Your task to perform on an android device: Open ESPN.com Image 0: 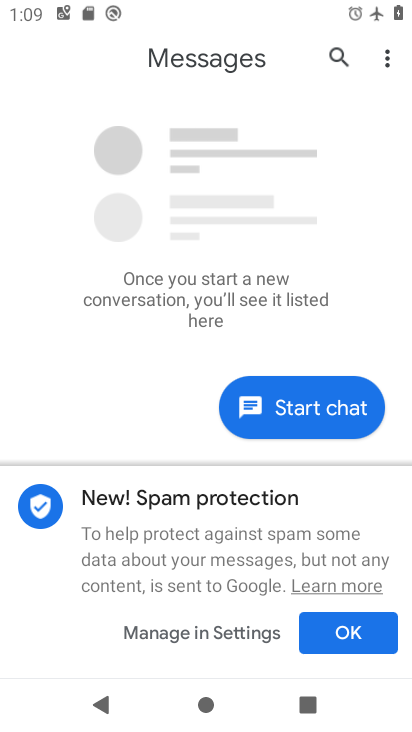
Step 0: press home button
Your task to perform on an android device: Open ESPN.com Image 1: 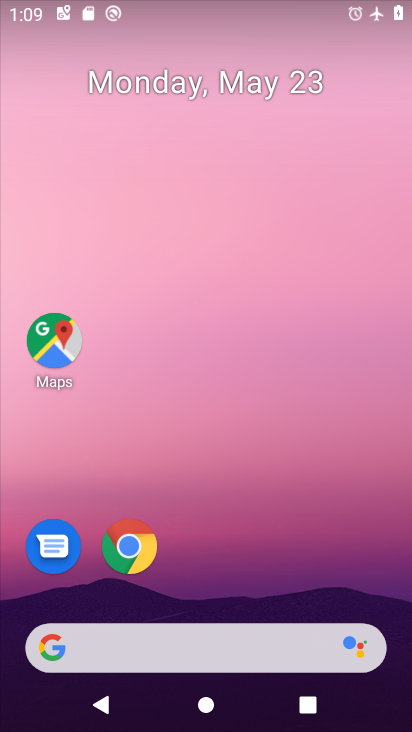
Step 1: drag from (231, 645) to (246, 22)
Your task to perform on an android device: Open ESPN.com Image 2: 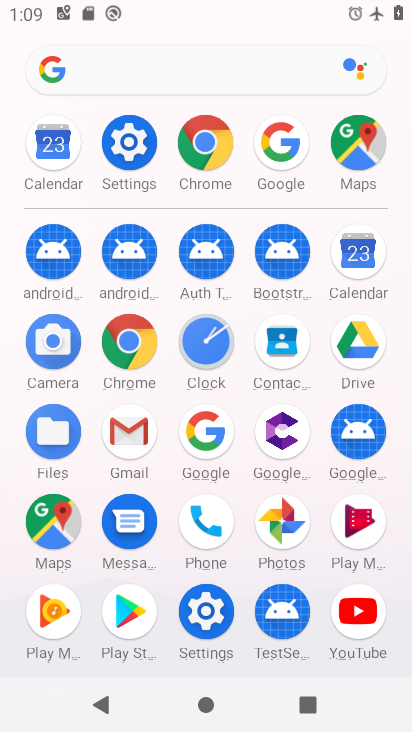
Step 2: click (201, 171)
Your task to perform on an android device: Open ESPN.com Image 3: 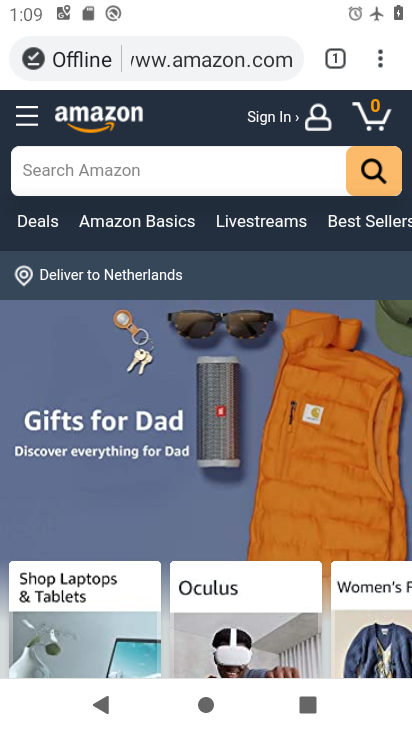
Step 3: click (248, 46)
Your task to perform on an android device: Open ESPN.com Image 4: 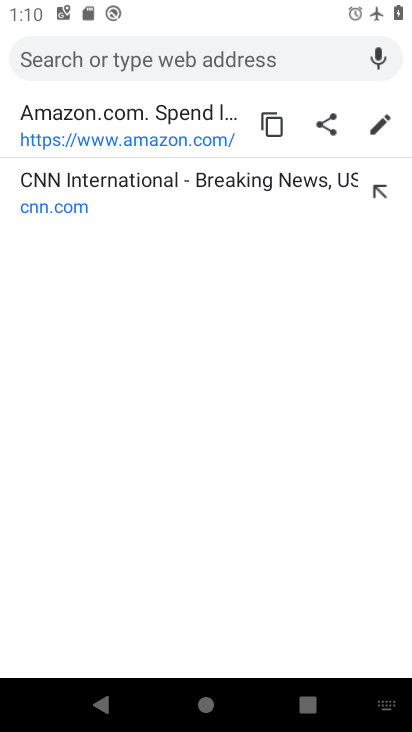
Step 4: task complete